Your task to perform on an android device: What's on my calendar tomorrow? Image 0: 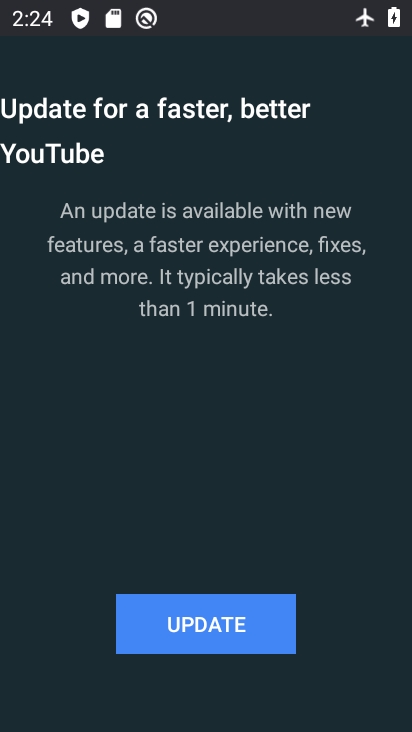
Step 0: press back button
Your task to perform on an android device: What's on my calendar tomorrow? Image 1: 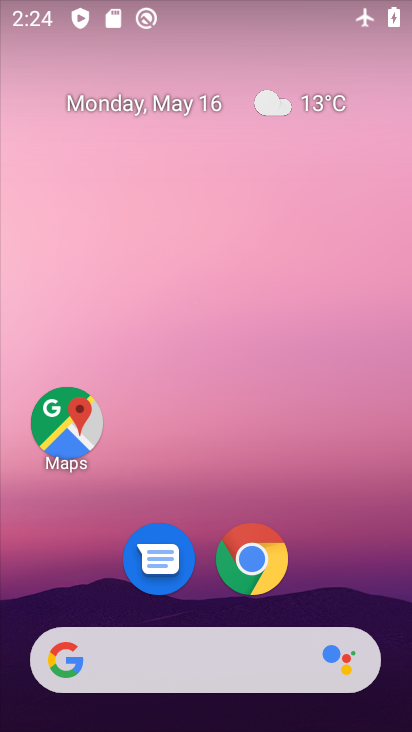
Step 1: drag from (189, 600) to (93, 88)
Your task to perform on an android device: What's on my calendar tomorrow? Image 2: 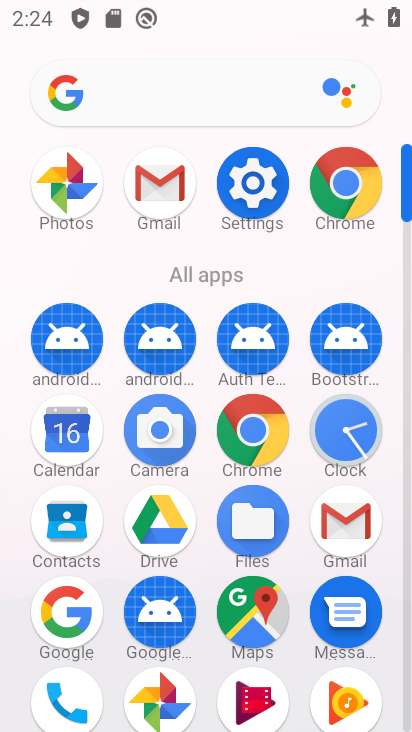
Step 2: click (68, 448)
Your task to perform on an android device: What's on my calendar tomorrow? Image 3: 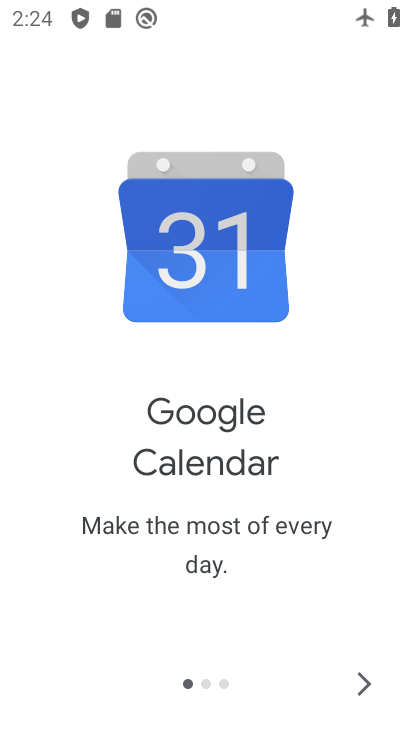
Step 3: click (362, 697)
Your task to perform on an android device: What's on my calendar tomorrow? Image 4: 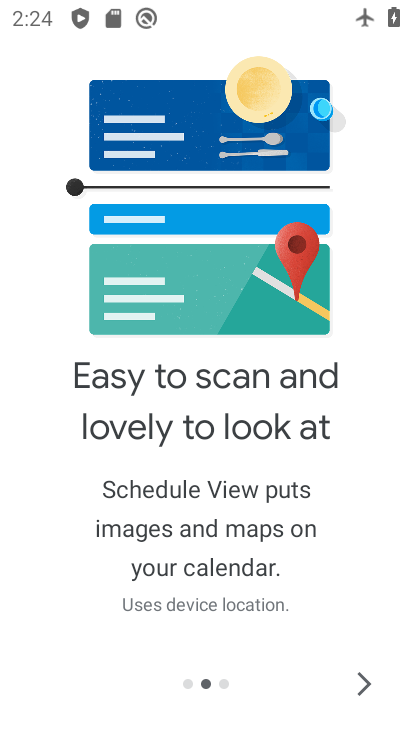
Step 4: click (365, 673)
Your task to perform on an android device: What's on my calendar tomorrow? Image 5: 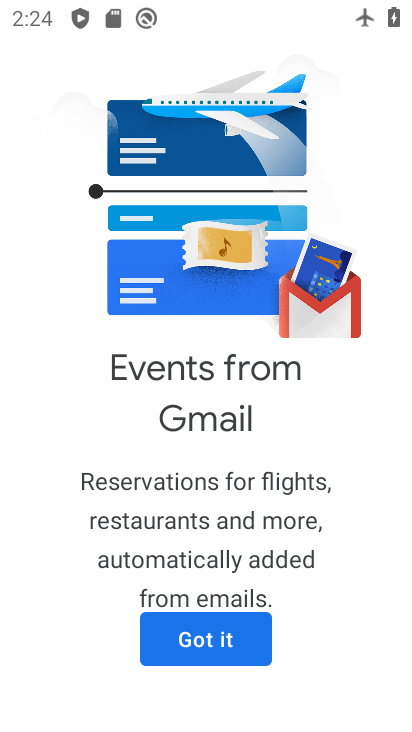
Step 5: click (221, 641)
Your task to perform on an android device: What's on my calendar tomorrow? Image 6: 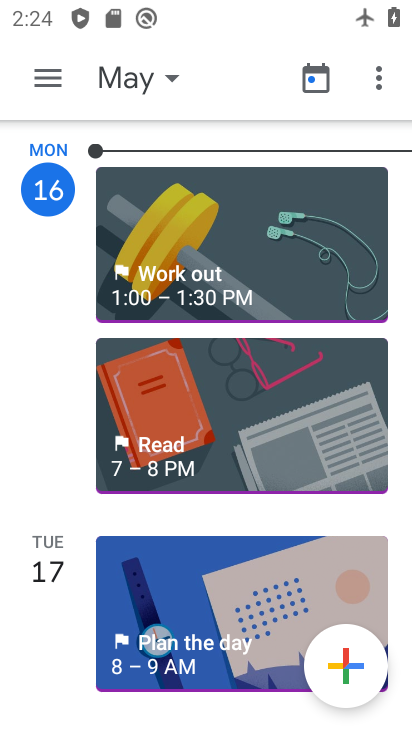
Step 6: click (57, 576)
Your task to perform on an android device: What's on my calendar tomorrow? Image 7: 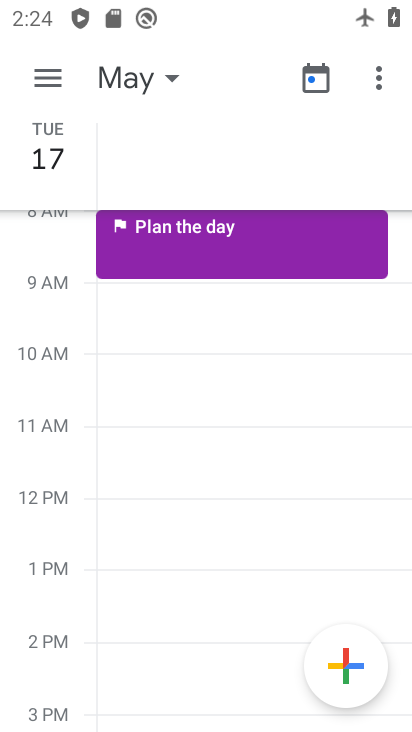
Step 7: task complete